Your task to perform on an android device: open a new tab in the chrome app Image 0: 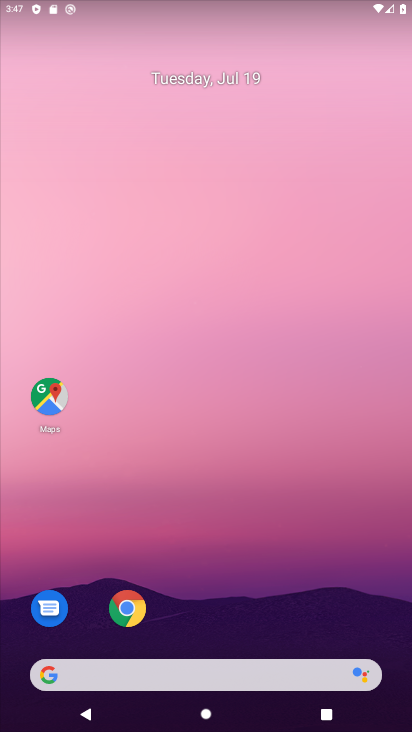
Step 0: click (124, 614)
Your task to perform on an android device: open a new tab in the chrome app Image 1: 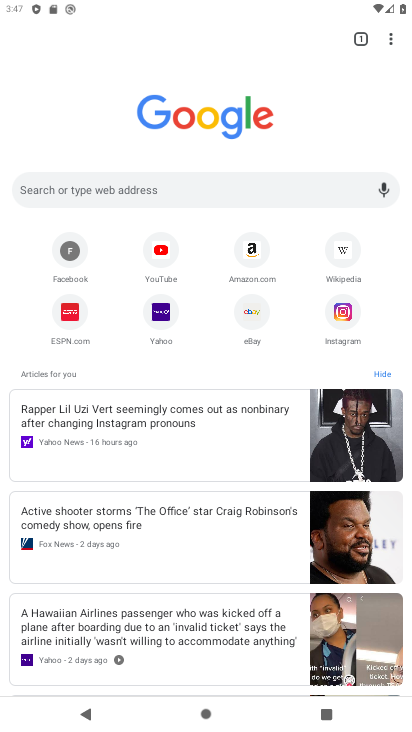
Step 1: click (388, 38)
Your task to perform on an android device: open a new tab in the chrome app Image 2: 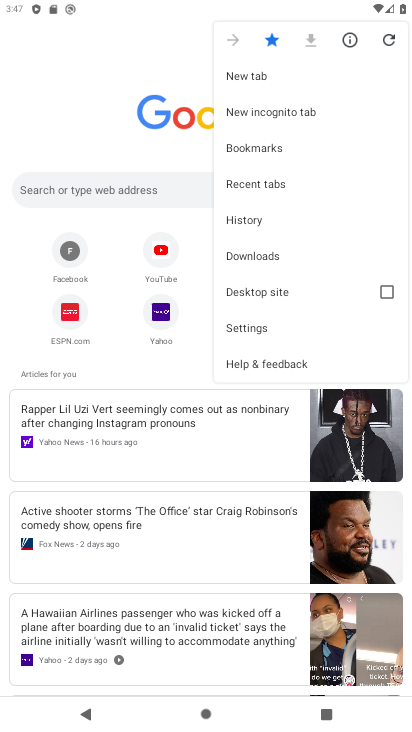
Step 2: click (304, 77)
Your task to perform on an android device: open a new tab in the chrome app Image 3: 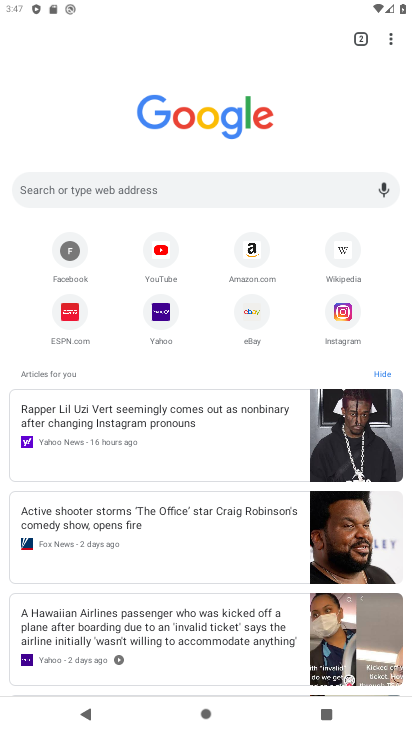
Step 3: task complete